Your task to perform on an android device: turn on showing notifications on the lock screen Image 0: 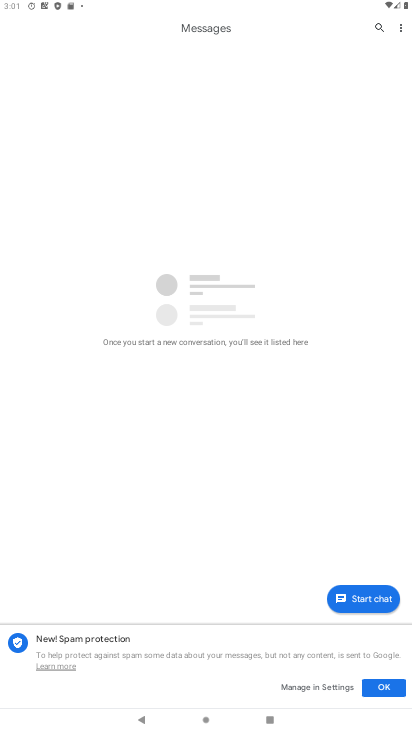
Step 0: press home button
Your task to perform on an android device: turn on showing notifications on the lock screen Image 1: 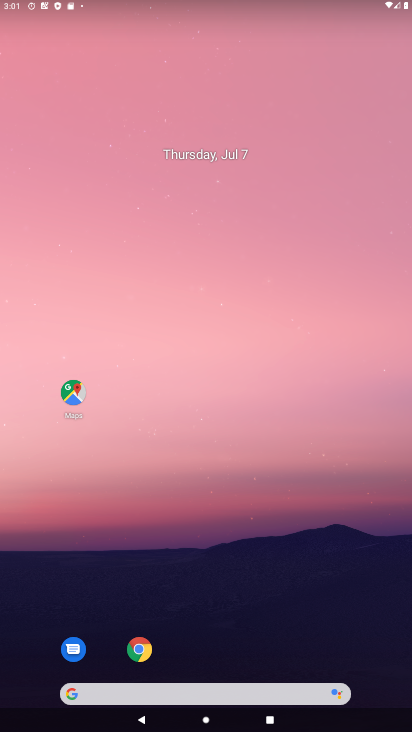
Step 1: drag from (221, 650) to (214, 181)
Your task to perform on an android device: turn on showing notifications on the lock screen Image 2: 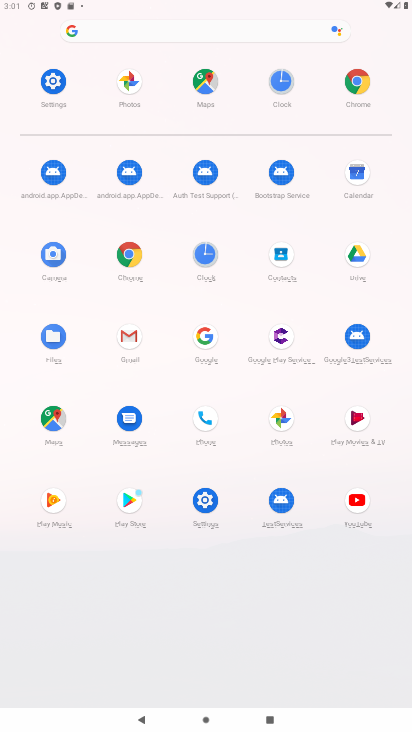
Step 2: click (47, 86)
Your task to perform on an android device: turn on showing notifications on the lock screen Image 3: 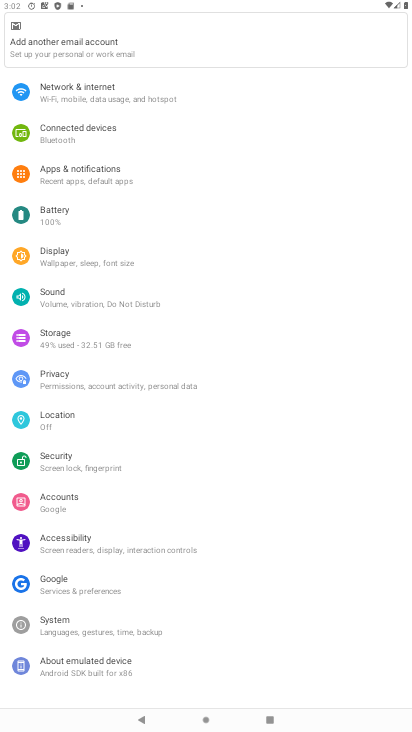
Step 3: click (75, 178)
Your task to perform on an android device: turn on showing notifications on the lock screen Image 4: 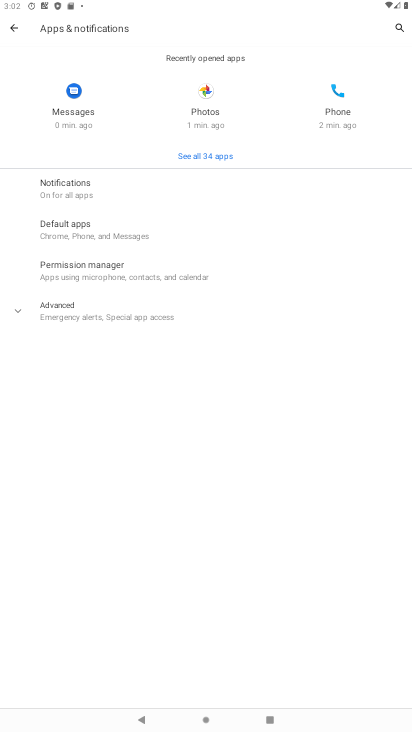
Step 4: click (79, 191)
Your task to perform on an android device: turn on showing notifications on the lock screen Image 5: 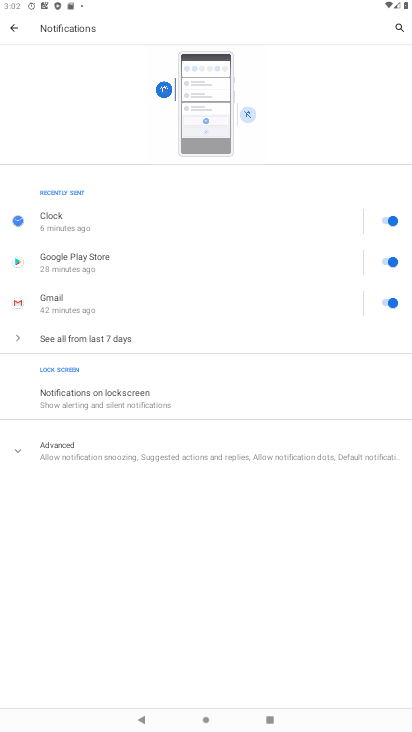
Step 5: click (111, 404)
Your task to perform on an android device: turn on showing notifications on the lock screen Image 6: 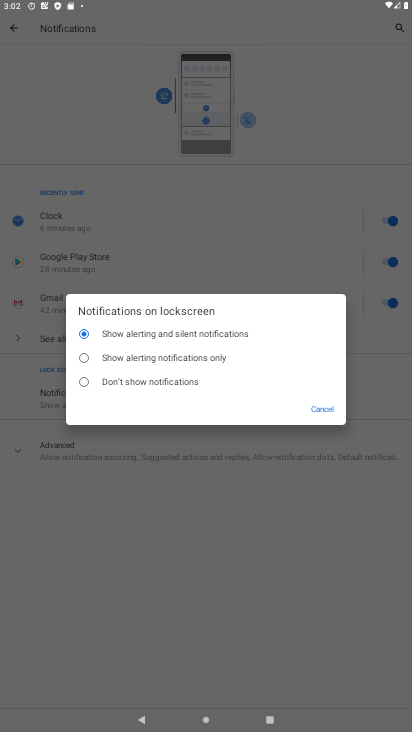
Step 6: task complete